Your task to perform on an android device: add a contact Image 0: 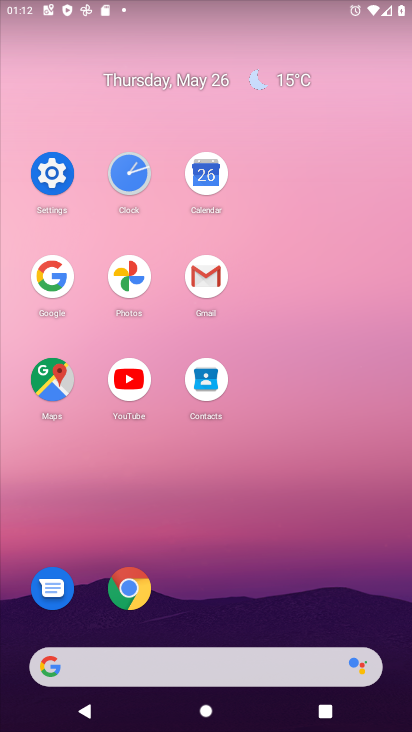
Step 0: drag from (230, 592) to (233, 166)
Your task to perform on an android device: add a contact Image 1: 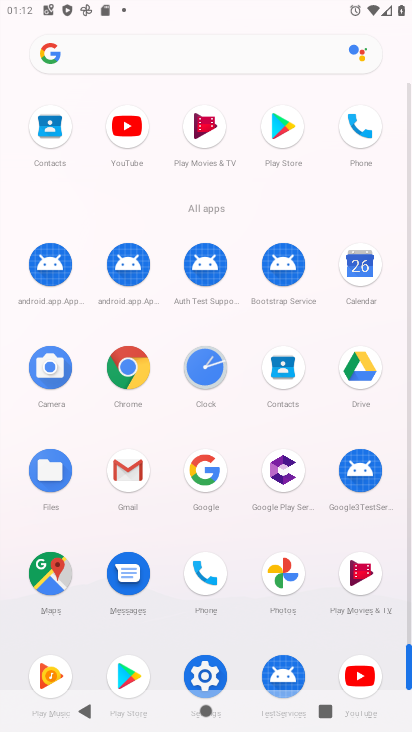
Step 1: click (280, 384)
Your task to perform on an android device: add a contact Image 2: 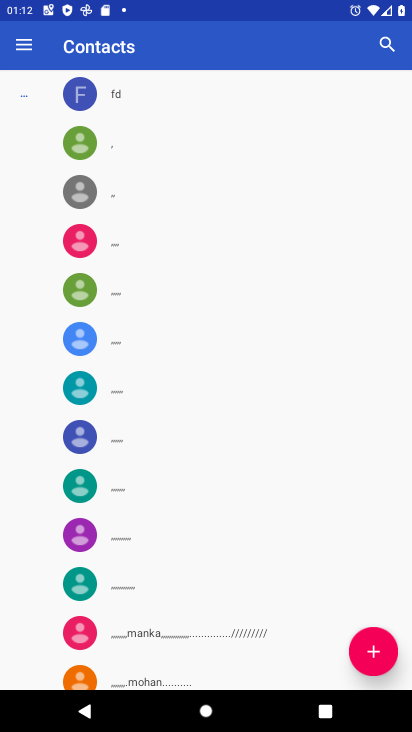
Step 2: click (378, 659)
Your task to perform on an android device: add a contact Image 3: 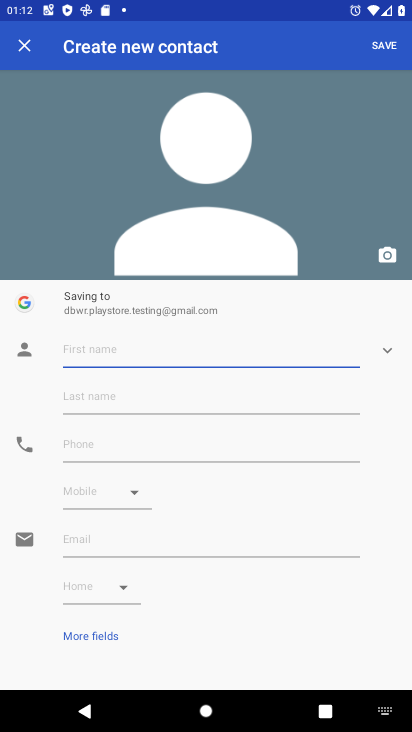
Step 3: type "ttvvss"
Your task to perform on an android device: add a contact Image 4: 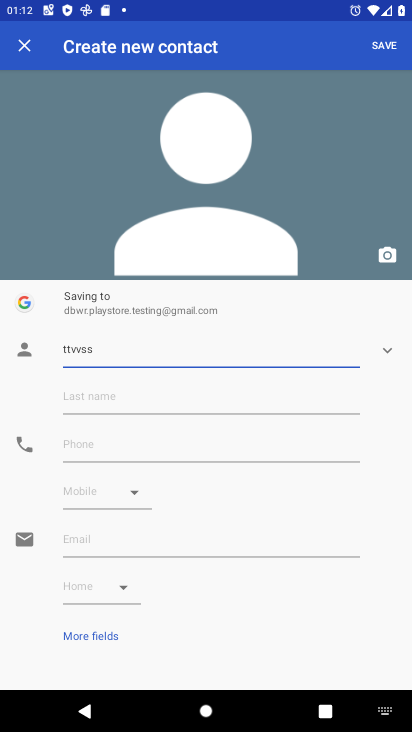
Step 4: click (124, 449)
Your task to perform on an android device: add a contact Image 5: 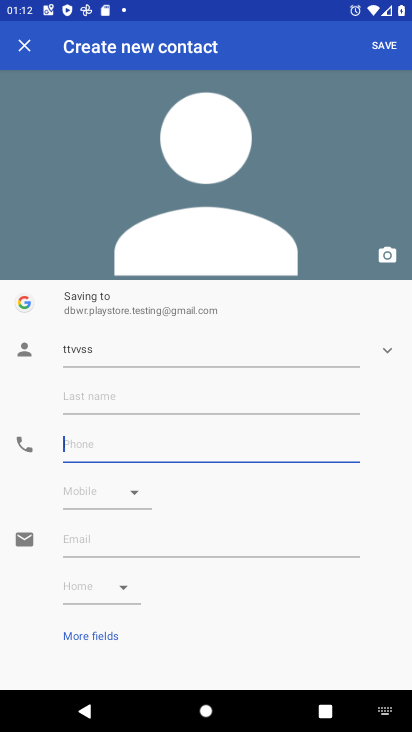
Step 5: type "2233445566"
Your task to perform on an android device: add a contact Image 6: 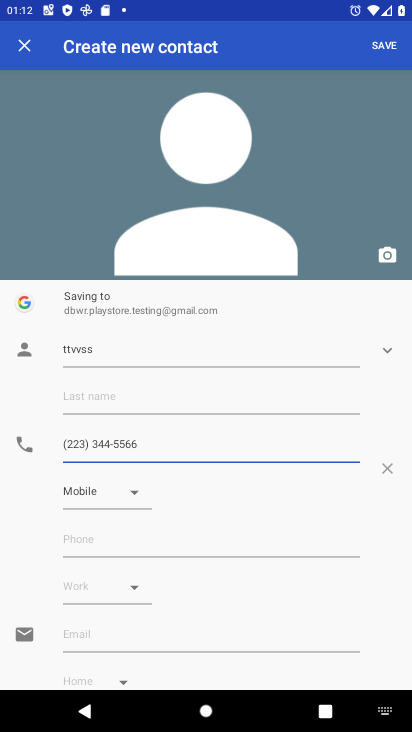
Step 6: click (381, 53)
Your task to perform on an android device: add a contact Image 7: 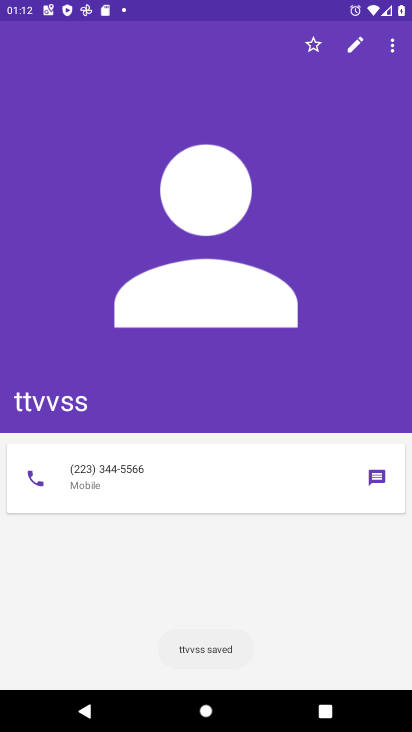
Step 7: task complete